Your task to perform on an android device: change keyboard looks Image 0: 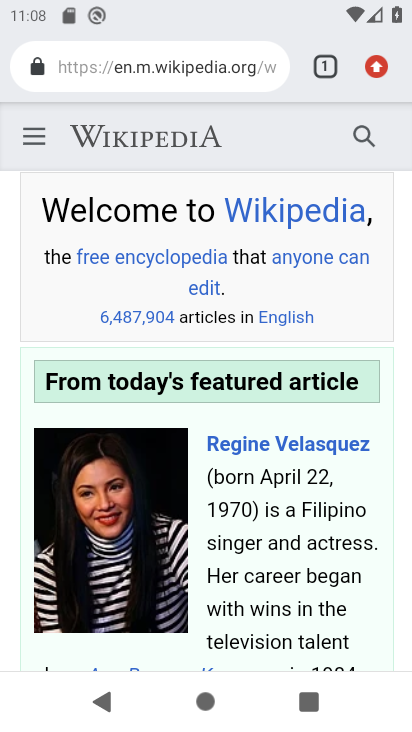
Step 0: press home button
Your task to perform on an android device: change keyboard looks Image 1: 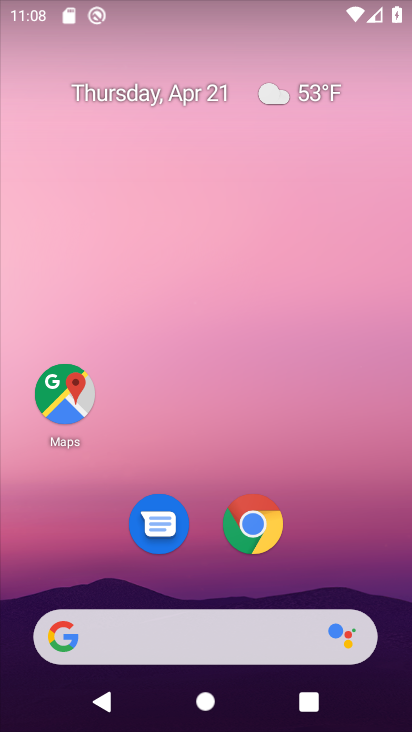
Step 1: drag from (350, 539) to (357, 87)
Your task to perform on an android device: change keyboard looks Image 2: 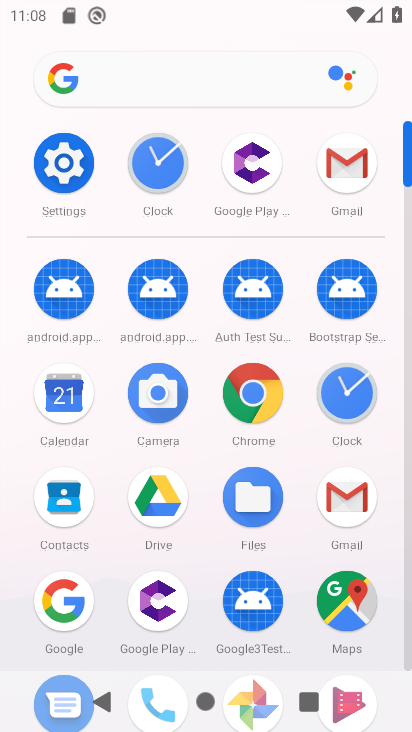
Step 2: click (66, 151)
Your task to perform on an android device: change keyboard looks Image 3: 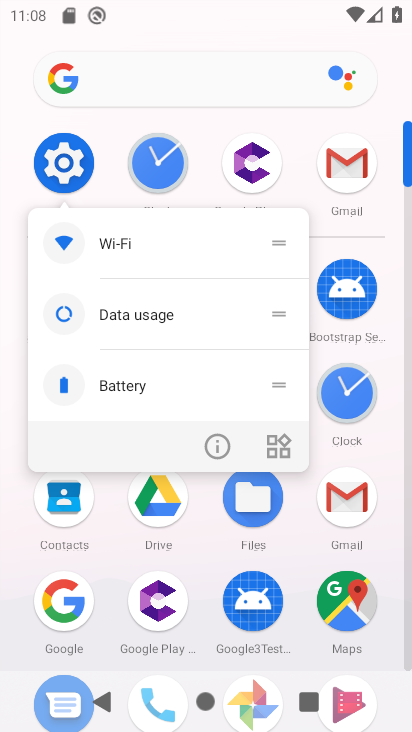
Step 3: click (66, 150)
Your task to perform on an android device: change keyboard looks Image 4: 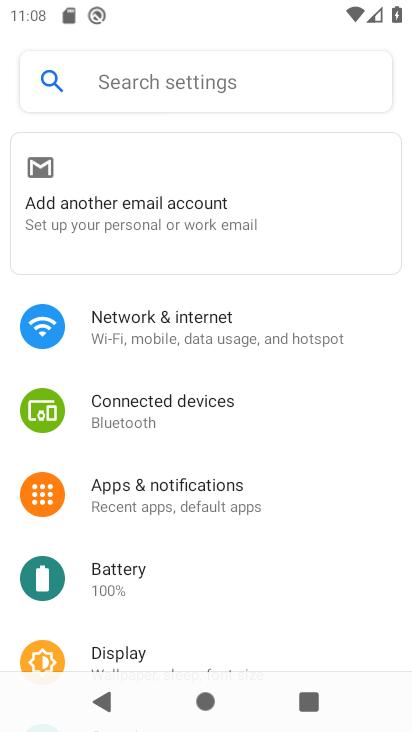
Step 4: click (72, 144)
Your task to perform on an android device: change keyboard looks Image 5: 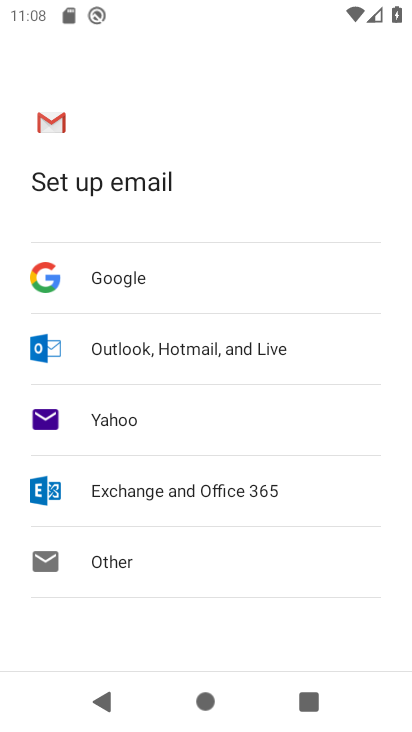
Step 5: press back button
Your task to perform on an android device: change keyboard looks Image 6: 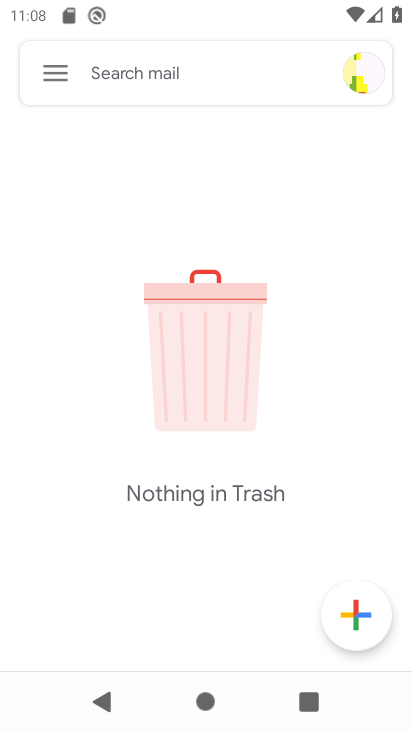
Step 6: press home button
Your task to perform on an android device: change keyboard looks Image 7: 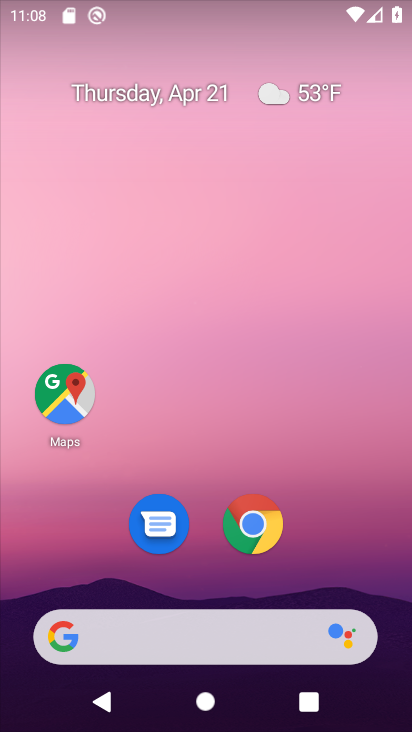
Step 7: drag from (330, 532) to (371, 102)
Your task to perform on an android device: change keyboard looks Image 8: 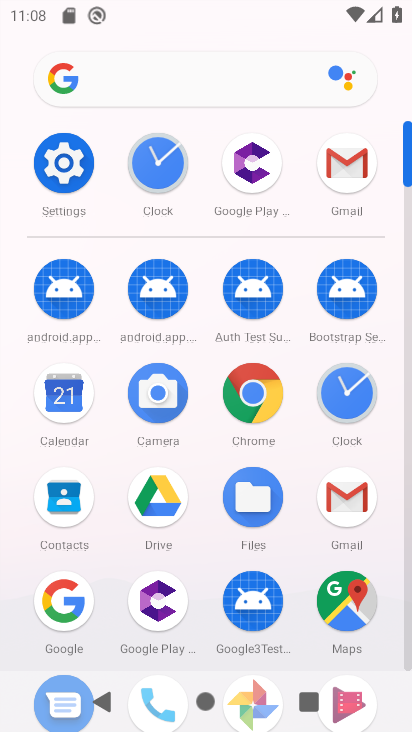
Step 8: click (65, 158)
Your task to perform on an android device: change keyboard looks Image 9: 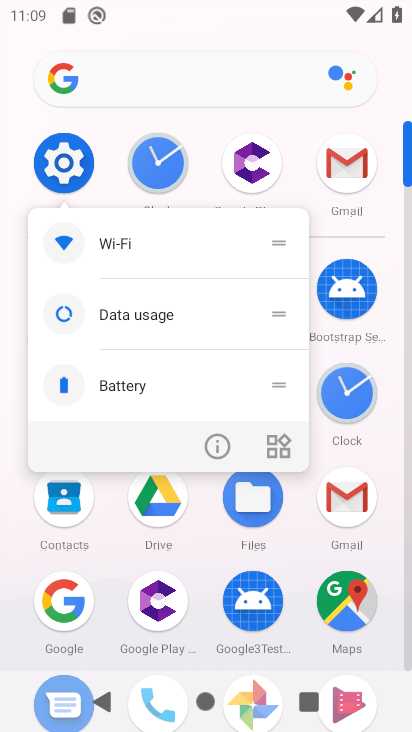
Step 9: click (65, 157)
Your task to perform on an android device: change keyboard looks Image 10: 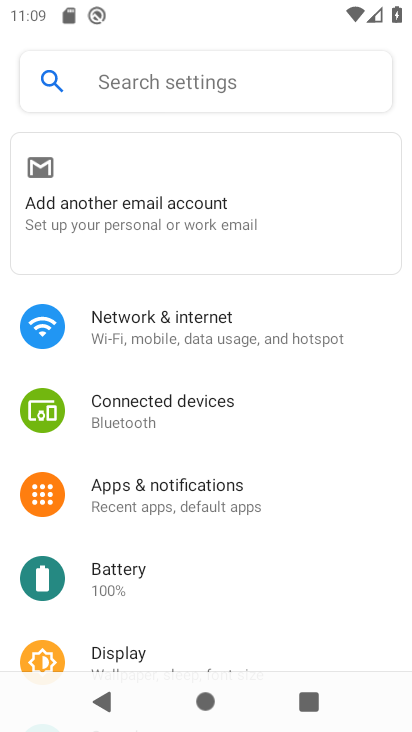
Step 10: drag from (202, 638) to (309, 0)
Your task to perform on an android device: change keyboard looks Image 11: 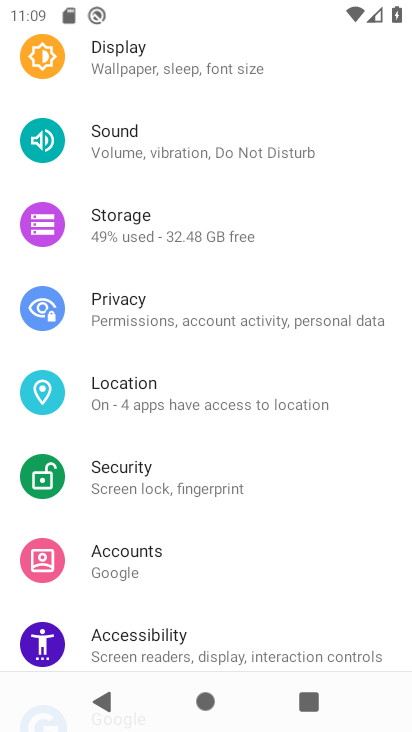
Step 11: drag from (179, 624) to (238, 241)
Your task to perform on an android device: change keyboard looks Image 12: 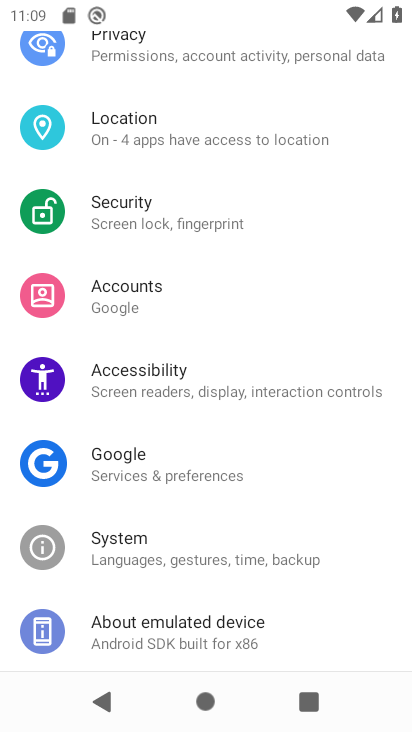
Step 12: click (179, 549)
Your task to perform on an android device: change keyboard looks Image 13: 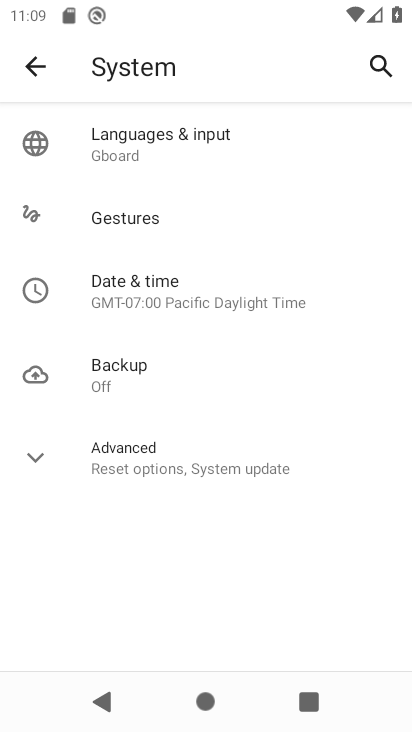
Step 13: click (195, 163)
Your task to perform on an android device: change keyboard looks Image 14: 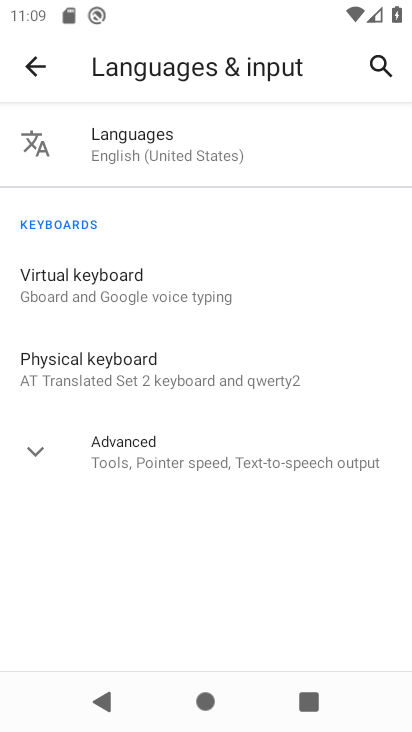
Step 14: click (116, 278)
Your task to perform on an android device: change keyboard looks Image 15: 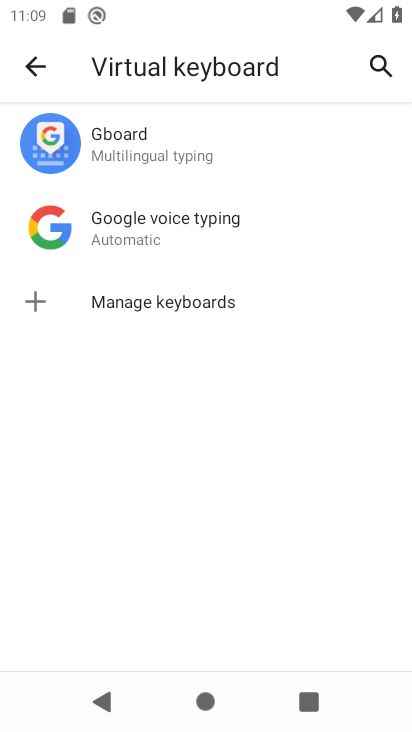
Step 15: click (194, 148)
Your task to perform on an android device: change keyboard looks Image 16: 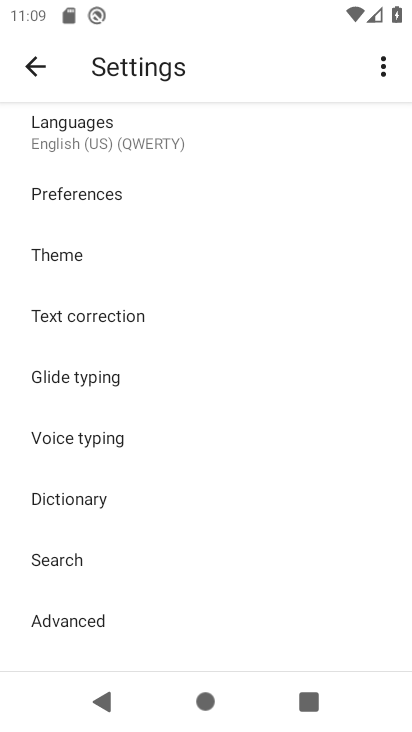
Step 16: click (104, 250)
Your task to perform on an android device: change keyboard looks Image 17: 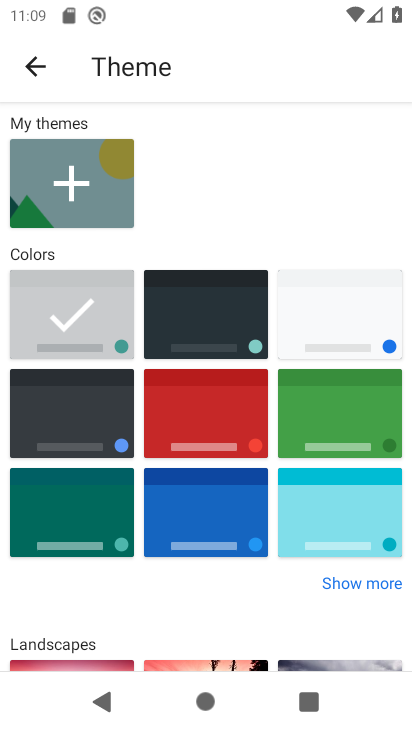
Step 17: click (340, 303)
Your task to perform on an android device: change keyboard looks Image 18: 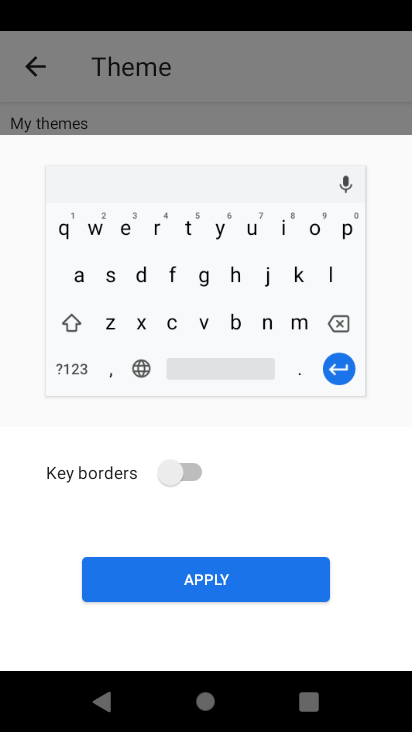
Step 18: click (181, 463)
Your task to perform on an android device: change keyboard looks Image 19: 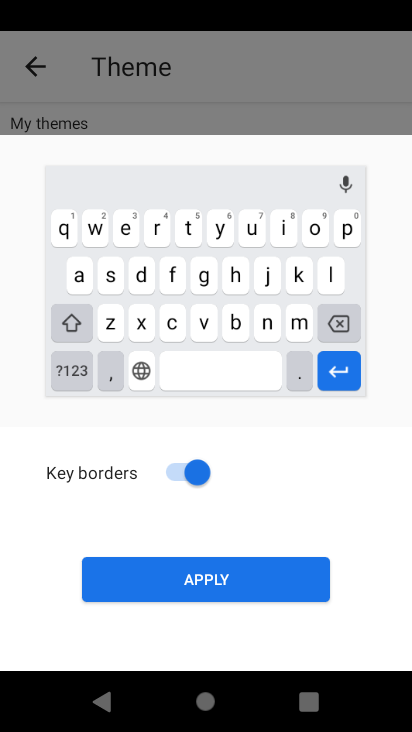
Step 19: click (223, 580)
Your task to perform on an android device: change keyboard looks Image 20: 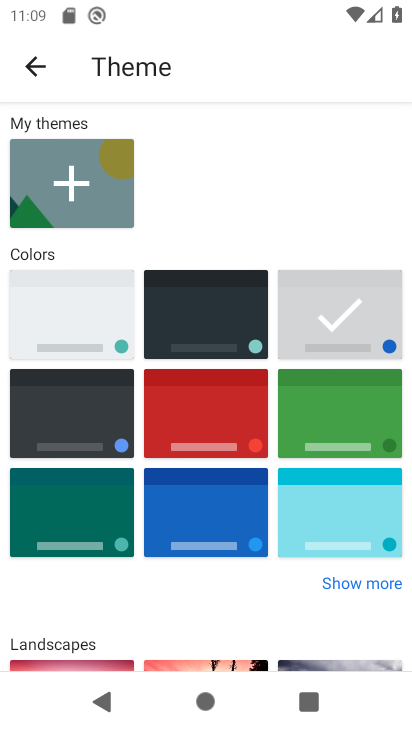
Step 20: task complete